Your task to perform on an android device: Go to settings Image 0: 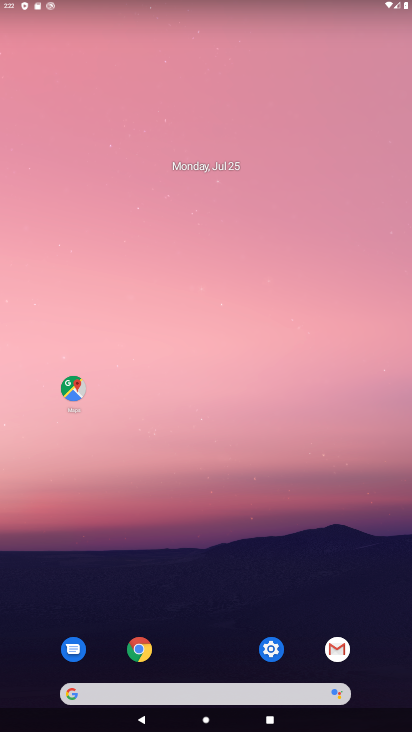
Step 0: click (271, 659)
Your task to perform on an android device: Go to settings Image 1: 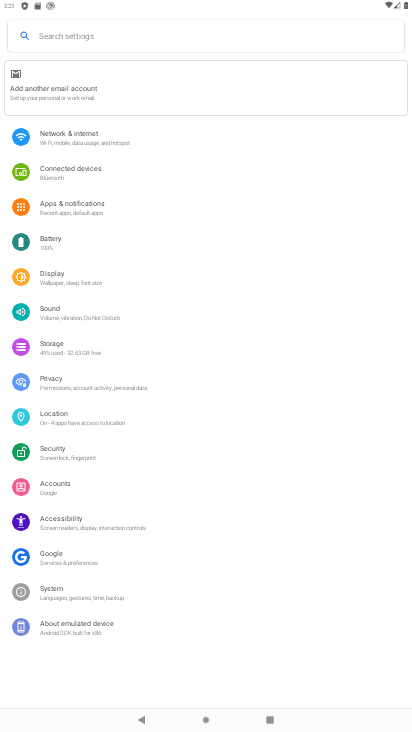
Step 1: task complete